Your task to perform on an android device: refresh tabs in the chrome app Image 0: 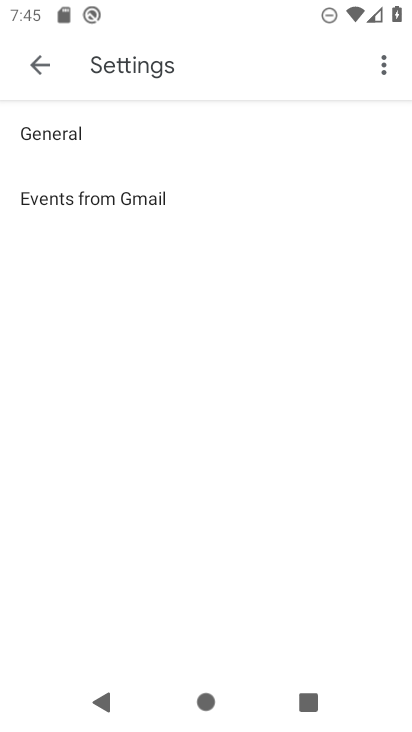
Step 0: press home button
Your task to perform on an android device: refresh tabs in the chrome app Image 1: 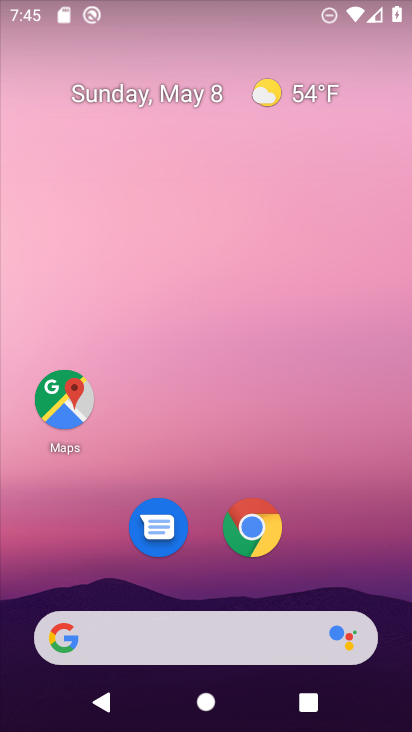
Step 1: click (250, 518)
Your task to perform on an android device: refresh tabs in the chrome app Image 2: 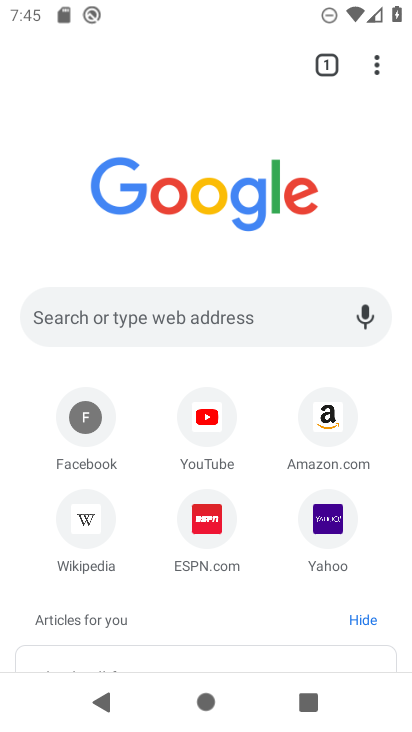
Step 2: click (380, 60)
Your task to perform on an android device: refresh tabs in the chrome app Image 3: 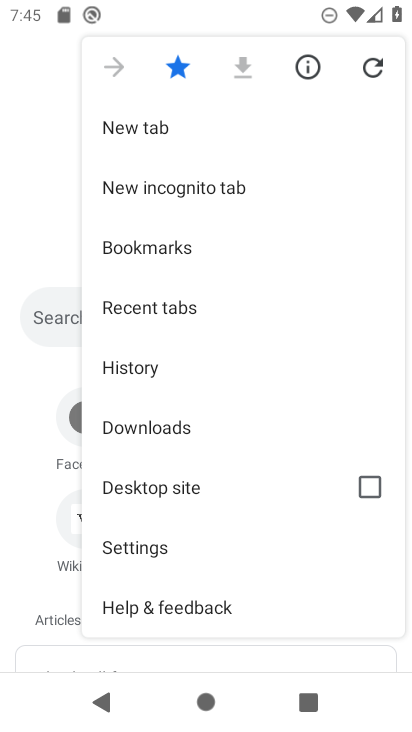
Step 3: click (373, 62)
Your task to perform on an android device: refresh tabs in the chrome app Image 4: 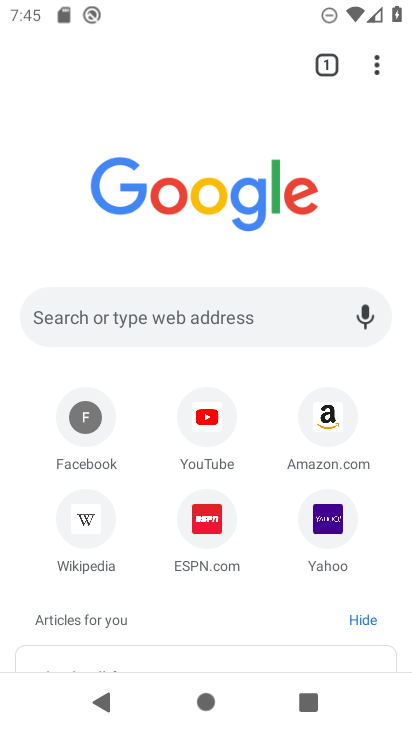
Step 4: task complete